Your task to perform on an android device: empty trash in google photos Image 0: 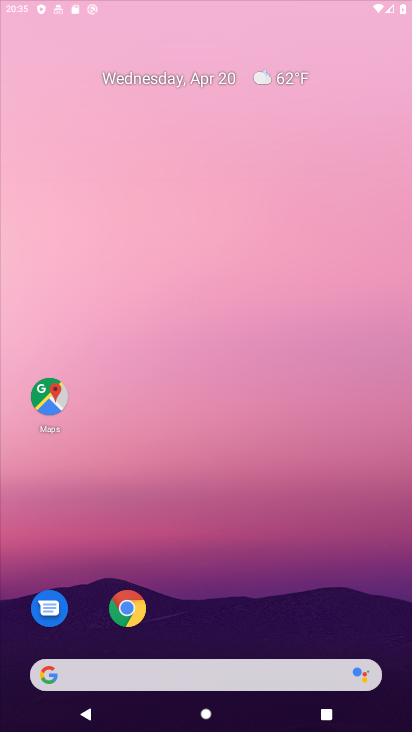
Step 0: click (257, 3)
Your task to perform on an android device: empty trash in google photos Image 1: 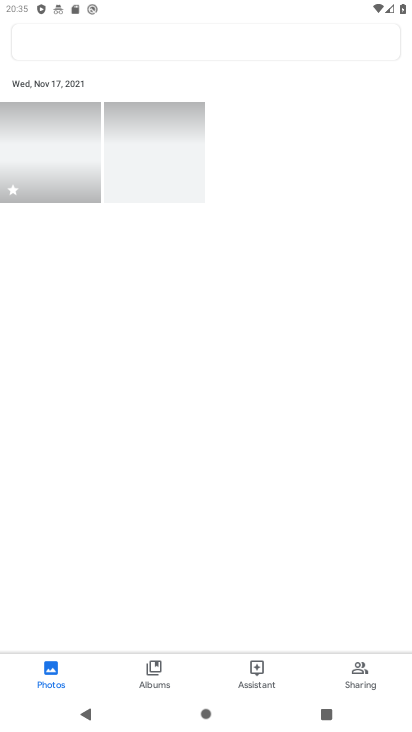
Step 1: press home button
Your task to perform on an android device: empty trash in google photos Image 2: 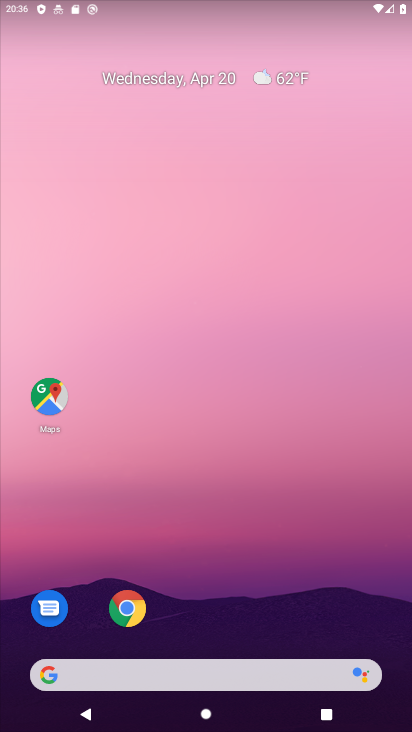
Step 2: drag from (356, 602) to (300, 0)
Your task to perform on an android device: empty trash in google photos Image 3: 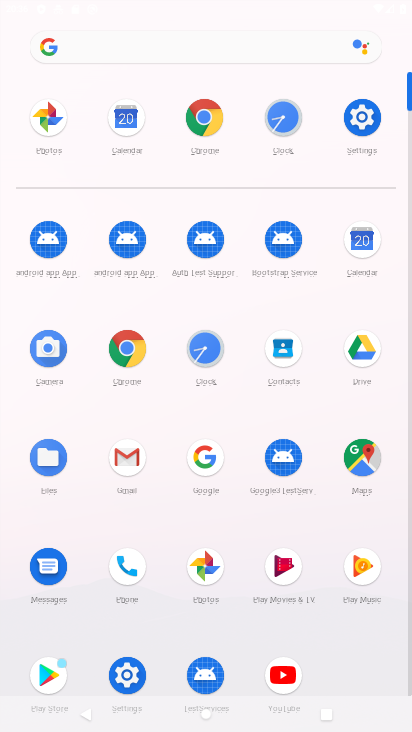
Step 3: click (39, 152)
Your task to perform on an android device: empty trash in google photos Image 4: 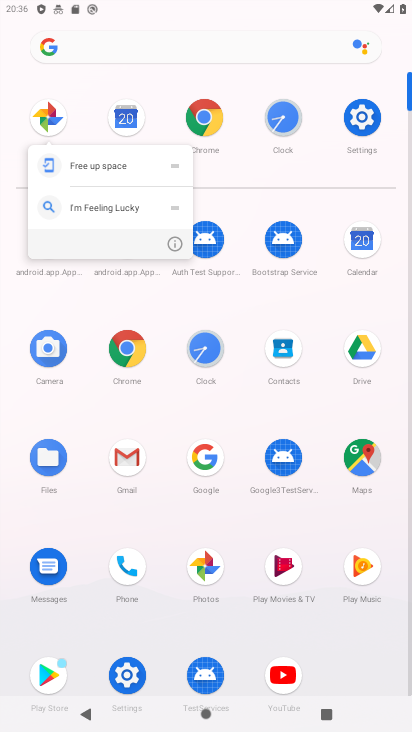
Step 4: click (46, 113)
Your task to perform on an android device: empty trash in google photos Image 5: 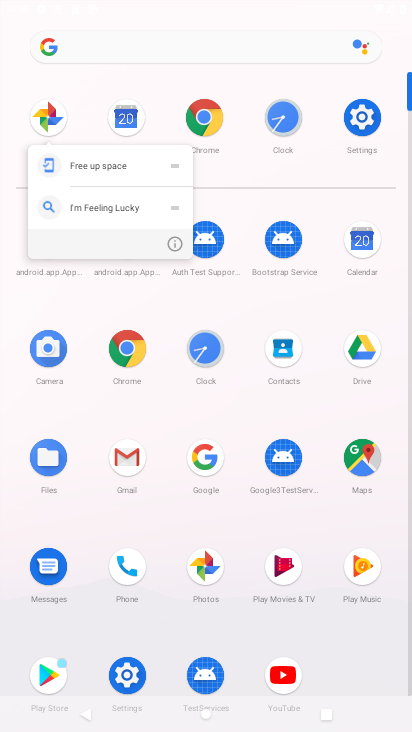
Step 5: click (46, 113)
Your task to perform on an android device: empty trash in google photos Image 6: 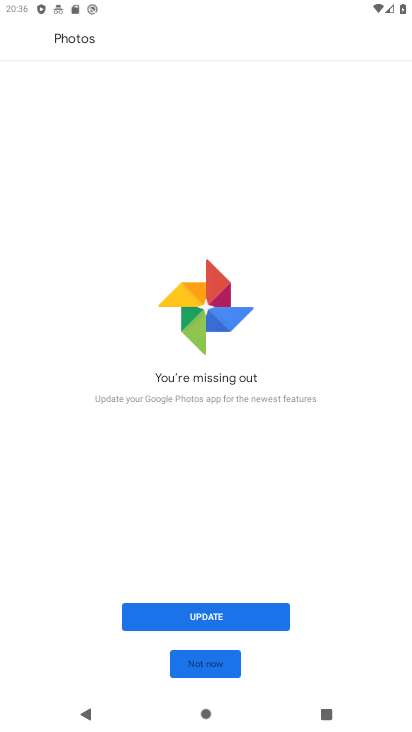
Step 6: click (187, 619)
Your task to perform on an android device: empty trash in google photos Image 7: 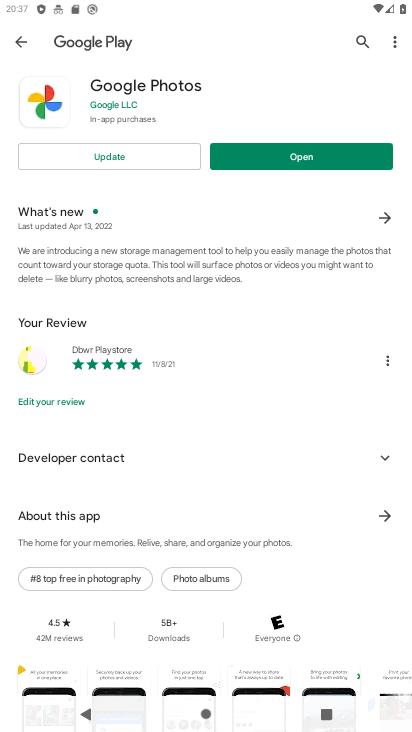
Step 7: click (139, 164)
Your task to perform on an android device: empty trash in google photos Image 8: 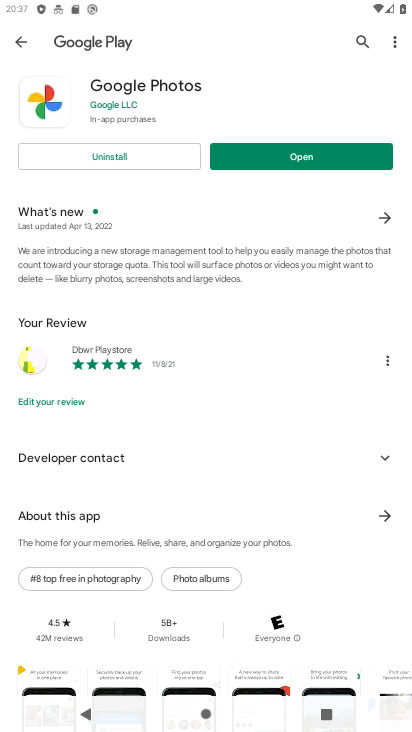
Step 8: click (274, 149)
Your task to perform on an android device: empty trash in google photos Image 9: 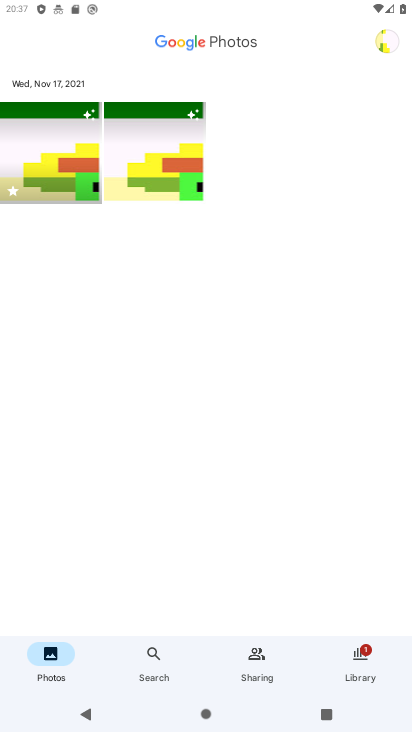
Step 9: click (385, 41)
Your task to perform on an android device: empty trash in google photos Image 10: 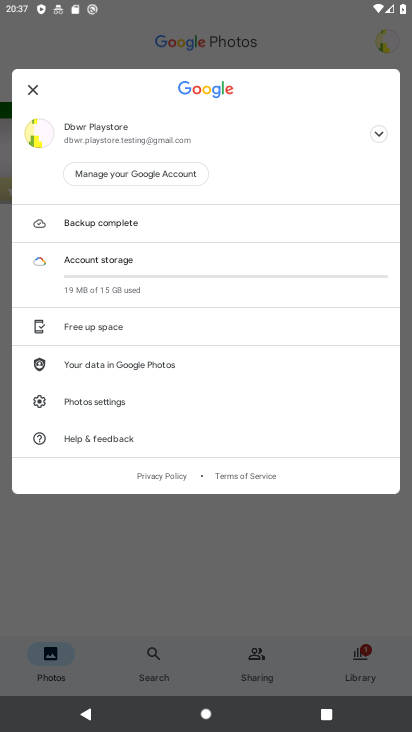
Step 10: click (361, 664)
Your task to perform on an android device: empty trash in google photos Image 11: 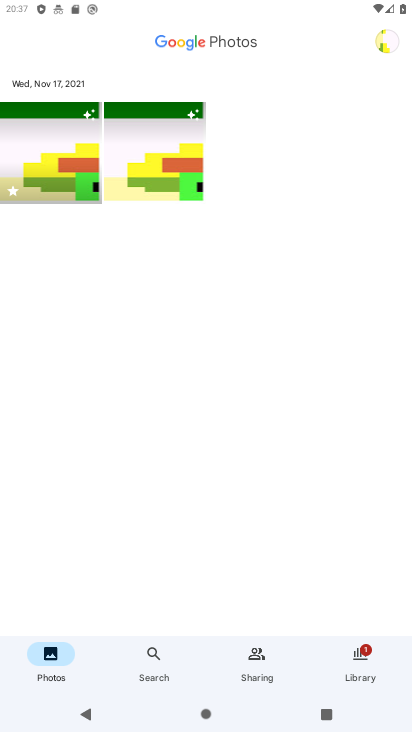
Step 11: click (361, 664)
Your task to perform on an android device: empty trash in google photos Image 12: 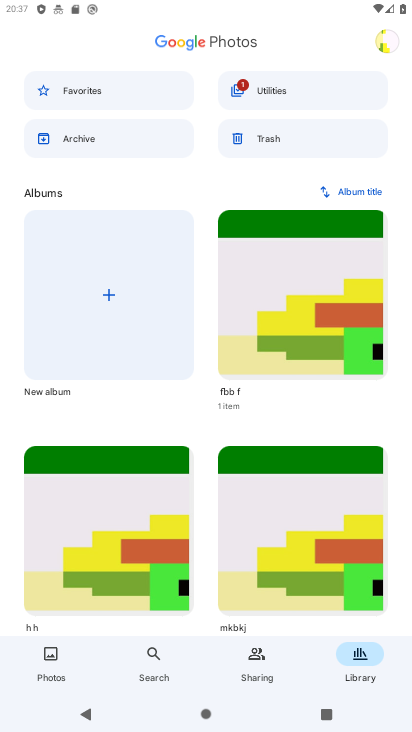
Step 12: click (274, 133)
Your task to perform on an android device: empty trash in google photos Image 13: 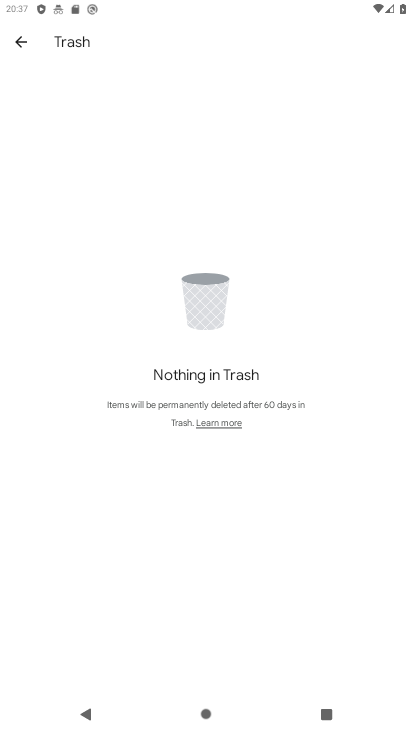
Step 13: task complete